Your task to perform on an android device: turn off airplane mode Image 0: 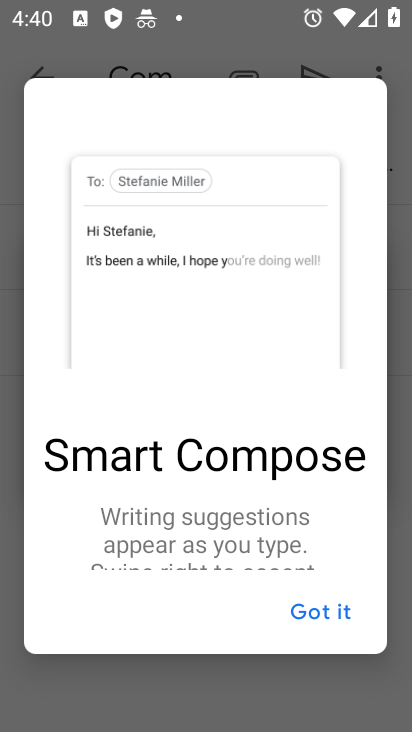
Step 0: press home button
Your task to perform on an android device: turn off airplane mode Image 1: 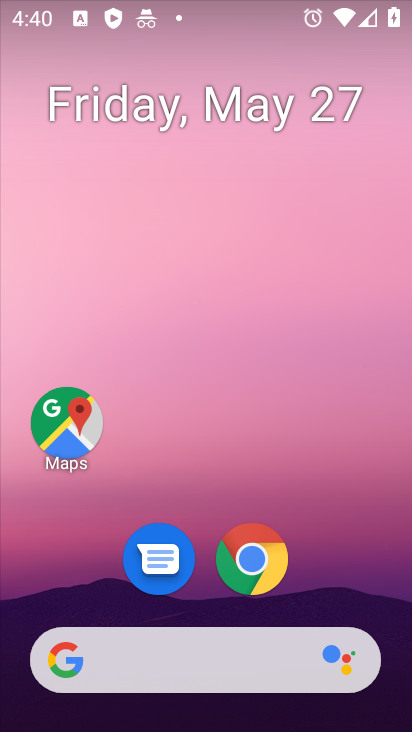
Step 1: drag from (309, 657) to (342, 54)
Your task to perform on an android device: turn off airplane mode Image 2: 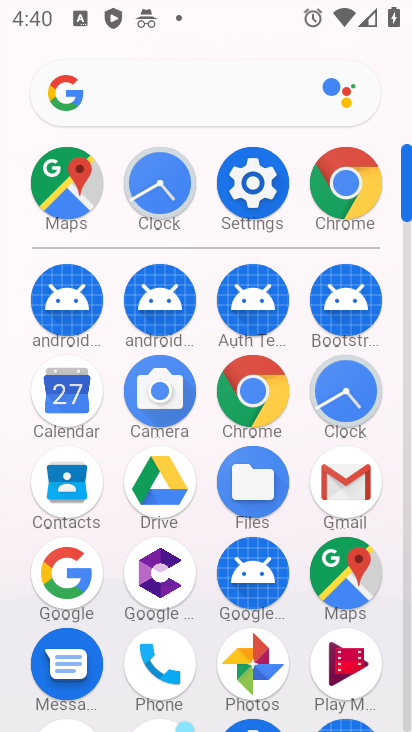
Step 2: click (273, 169)
Your task to perform on an android device: turn off airplane mode Image 3: 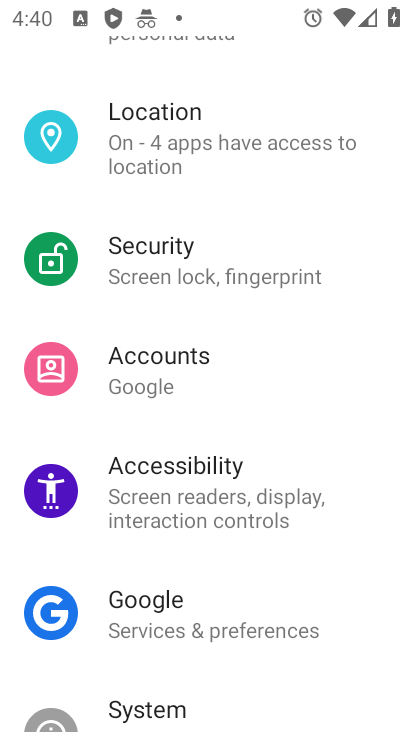
Step 3: drag from (247, 725) to (288, 700)
Your task to perform on an android device: turn off airplane mode Image 4: 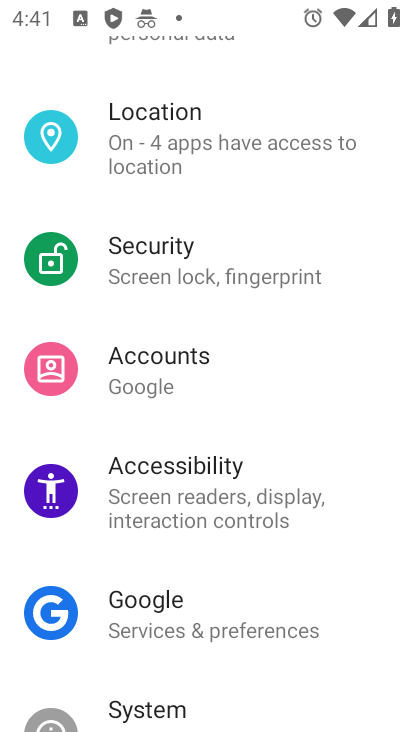
Step 4: drag from (222, 175) to (207, 689)
Your task to perform on an android device: turn off airplane mode Image 5: 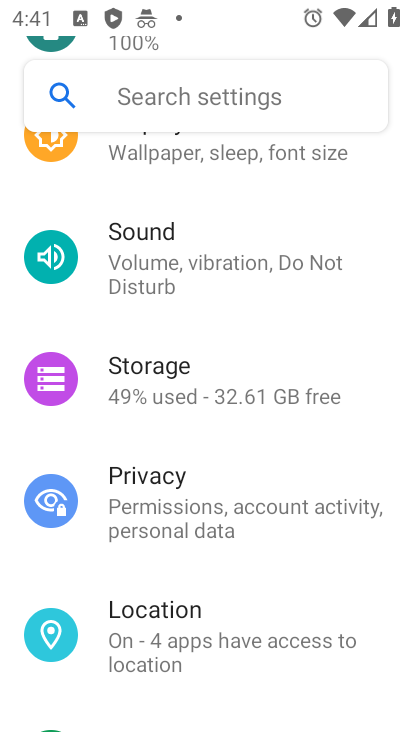
Step 5: drag from (247, 189) to (278, 722)
Your task to perform on an android device: turn off airplane mode Image 6: 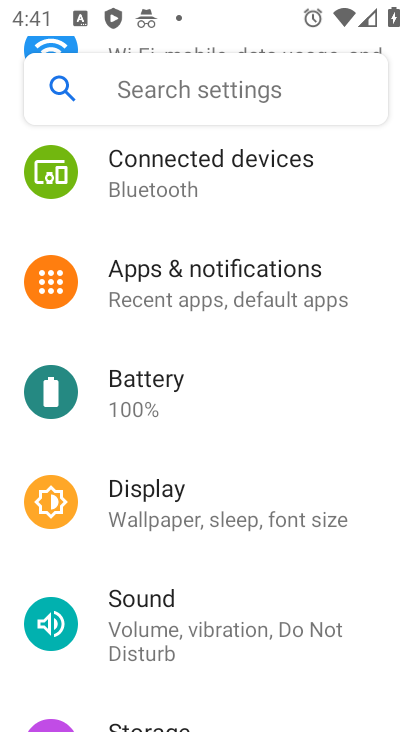
Step 6: drag from (261, 281) to (278, 731)
Your task to perform on an android device: turn off airplane mode Image 7: 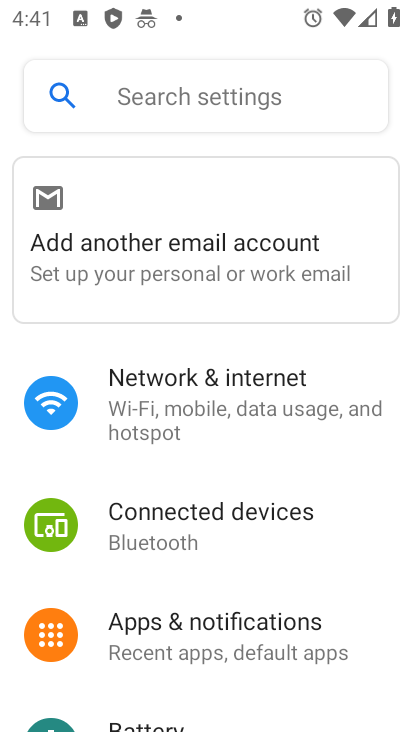
Step 7: click (210, 397)
Your task to perform on an android device: turn off airplane mode Image 8: 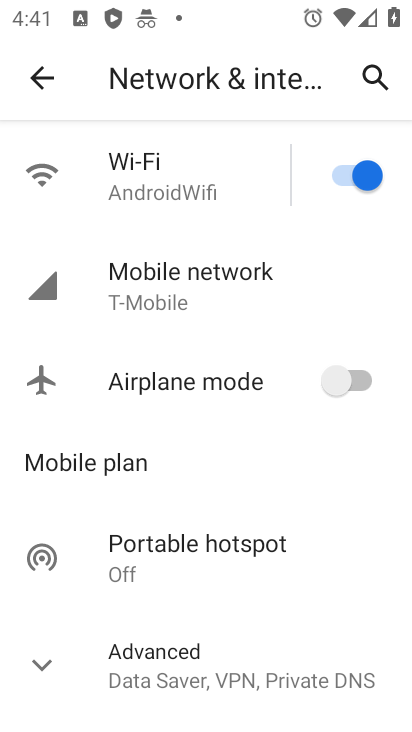
Step 8: task complete